Your task to perform on an android device: turn on location history Image 0: 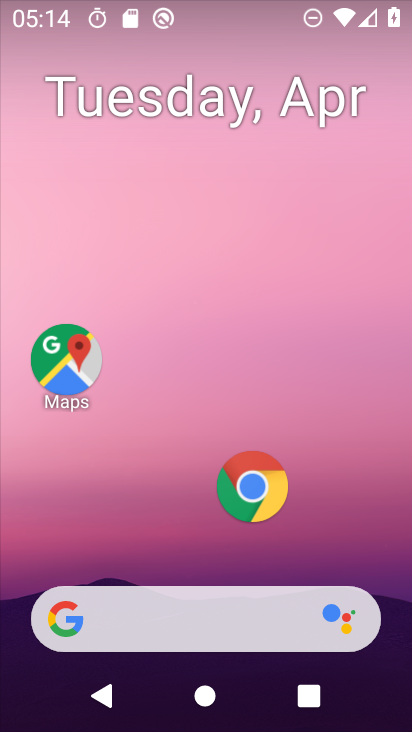
Step 0: drag from (100, 33) to (126, 432)
Your task to perform on an android device: turn on location history Image 1: 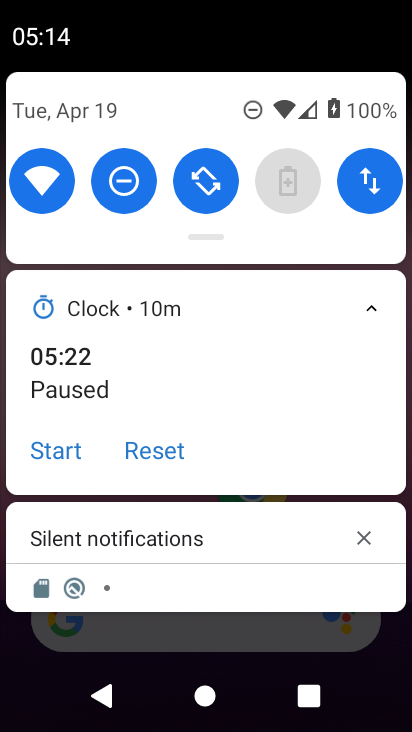
Step 1: click (247, 641)
Your task to perform on an android device: turn on location history Image 2: 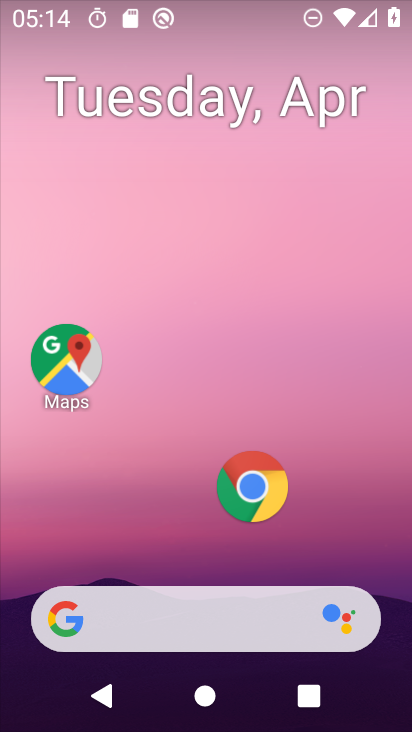
Step 2: drag from (258, 383) to (264, 141)
Your task to perform on an android device: turn on location history Image 3: 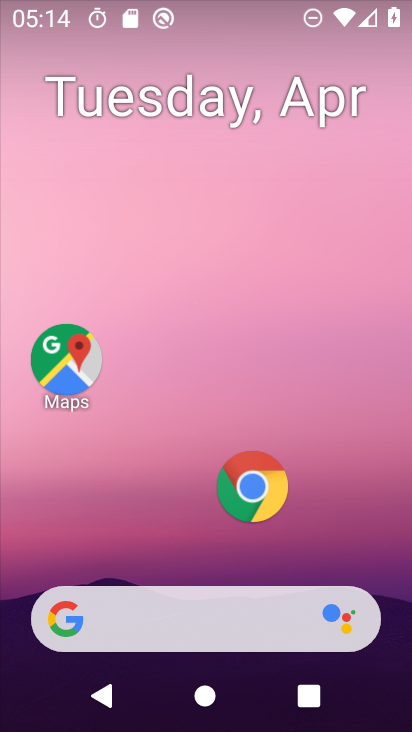
Step 3: drag from (170, 499) to (256, 17)
Your task to perform on an android device: turn on location history Image 4: 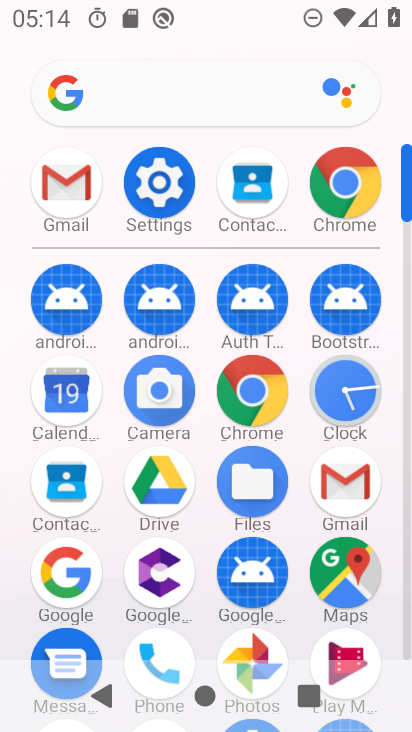
Step 4: click (156, 174)
Your task to perform on an android device: turn on location history Image 5: 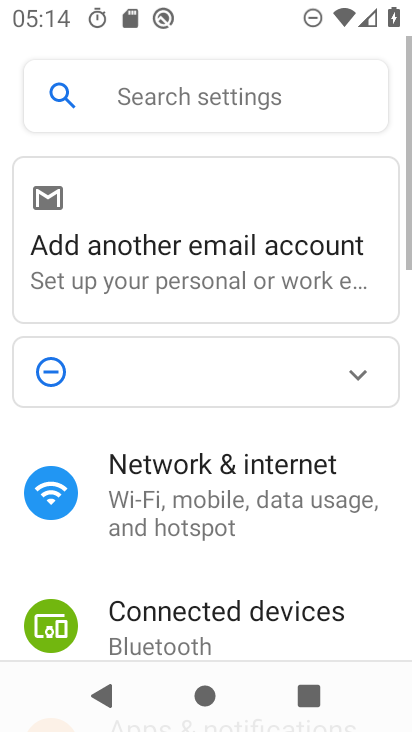
Step 5: drag from (210, 583) to (318, 91)
Your task to perform on an android device: turn on location history Image 6: 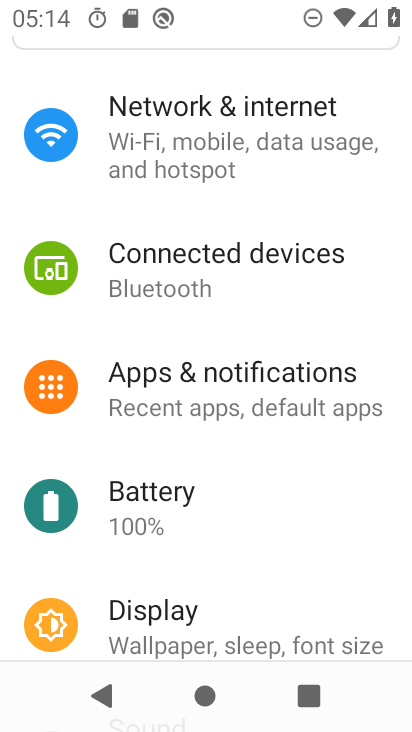
Step 6: drag from (236, 513) to (358, 35)
Your task to perform on an android device: turn on location history Image 7: 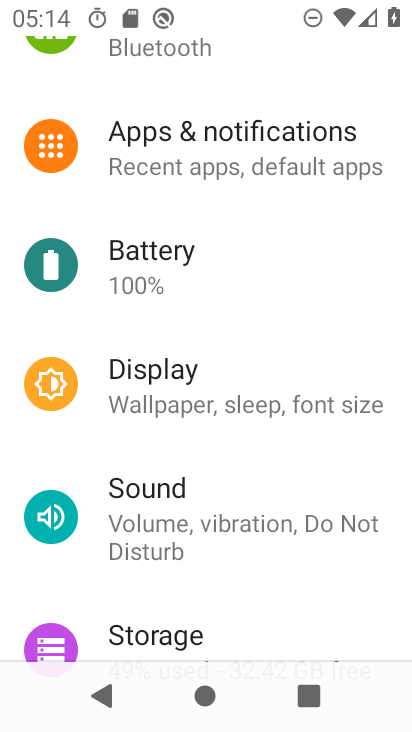
Step 7: drag from (210, 623) to (325, 127)
Your task to perform on an android device: turn on location history Image 8: 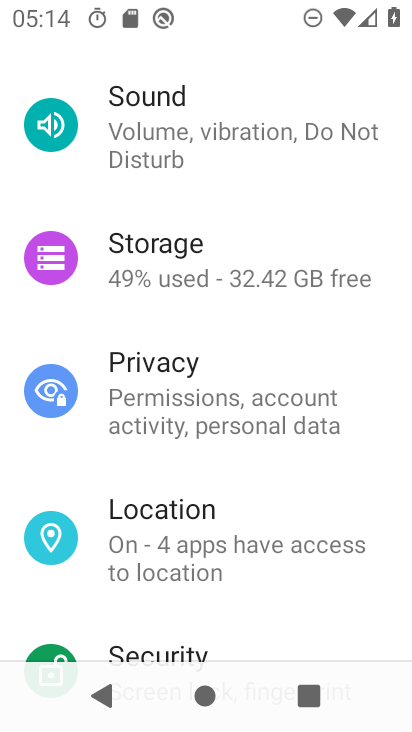
Step 8: click (193, 542)
Your task to perform on an android device: turn on location history Image 9: 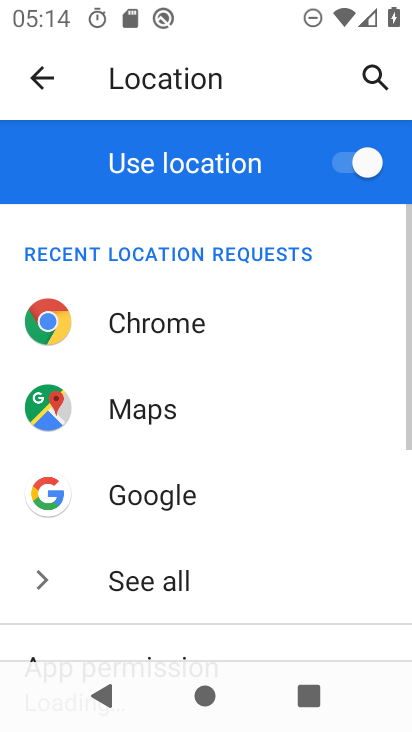
Step 9: drag from (215, 588) to (302, 129)
Your task to perform on an android device: turn on location history Image 10: 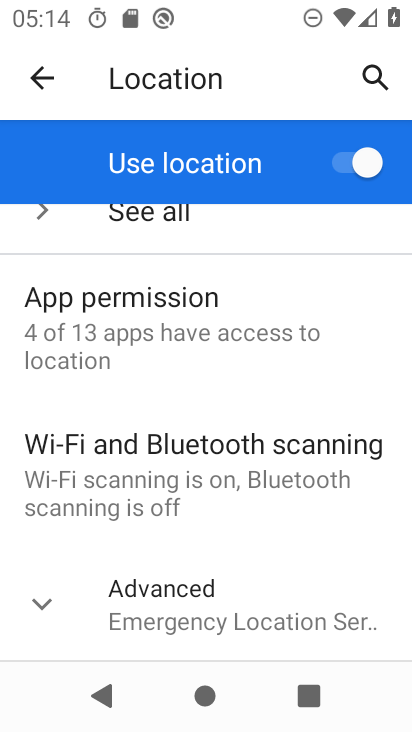
Step 10: click (186, 622)
Your task to perform on an android device: turn on location history Image 11: 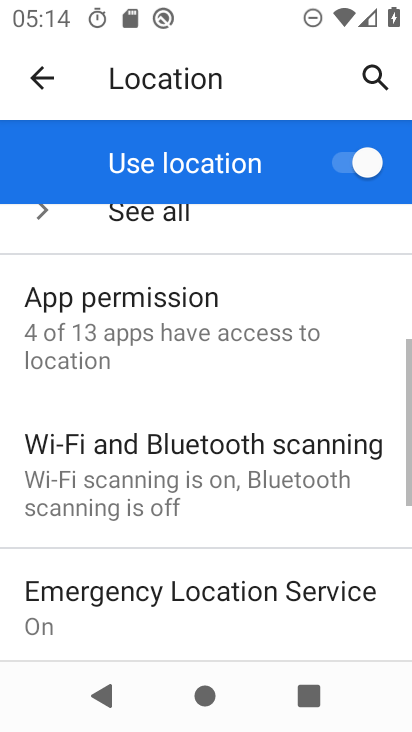
Step 11: drag from (190, 578) to (234, 157)
Your task to perform on an android device: turn on location history Image 12: 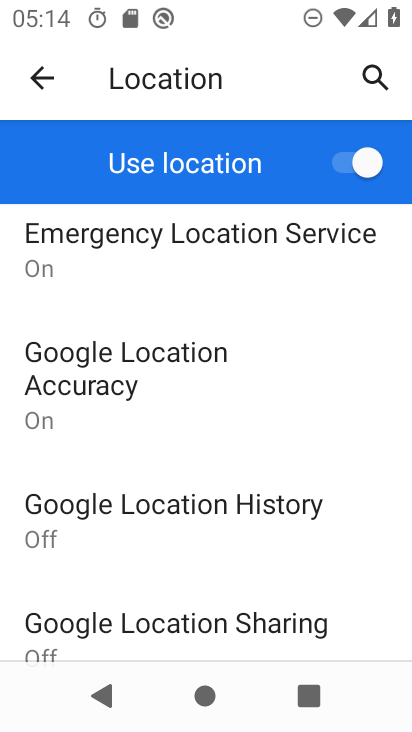
Step 12: click (204, 515)
Your task to perform on an android device: turn on location history Image 13: 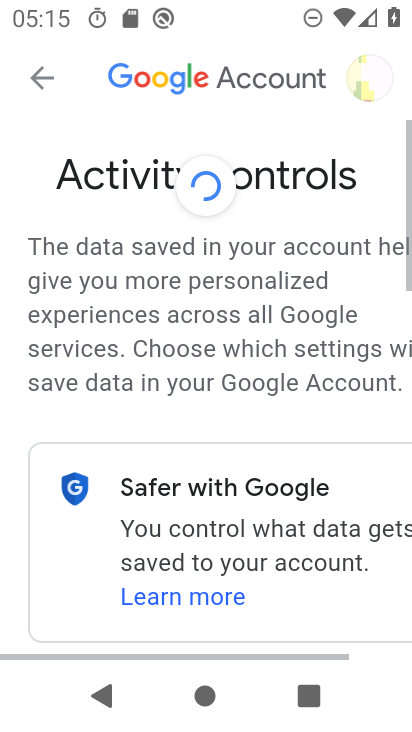
Step 13: drag from (180, 486) to (313, 80)
Your task to perform on an android device: turn on location history Image 14: 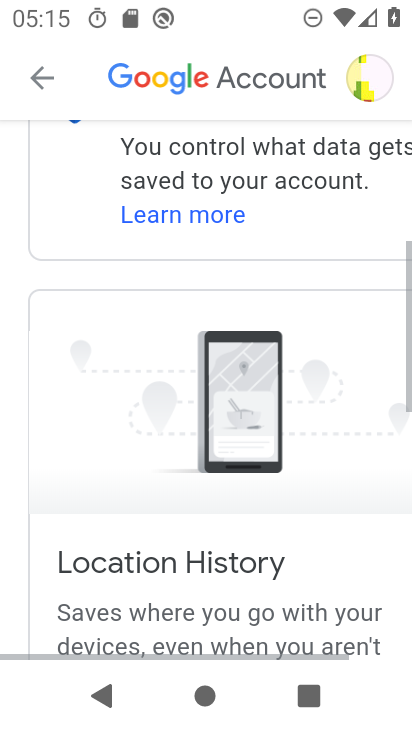
Step 14: drag from (218, 518) to (294, 90)
Your task to perform on an android device: turn on location history Image 15: 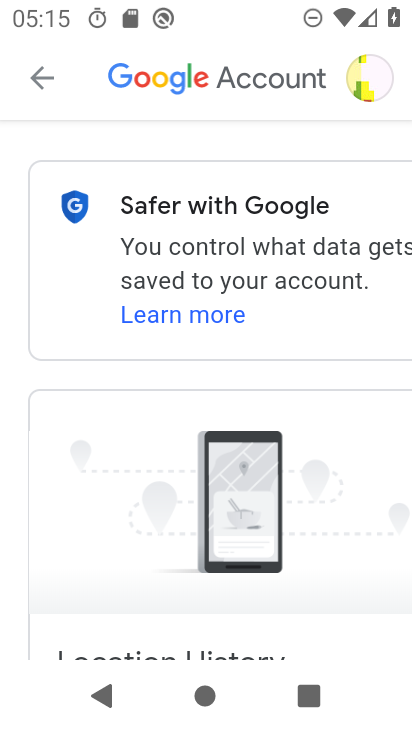
Step 15: drag from (205, 564) to (267, 93)
Your task to perform on an android device: turn on location history Image 16: 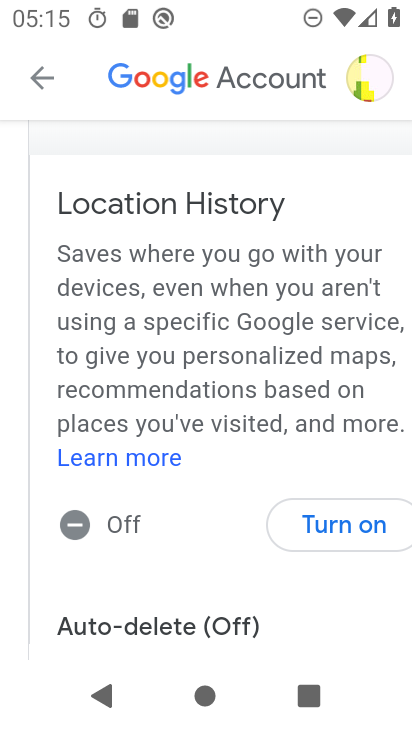
Step 16: click (324, 517)
Your task to perform on an android device: turn on location history Image 17: 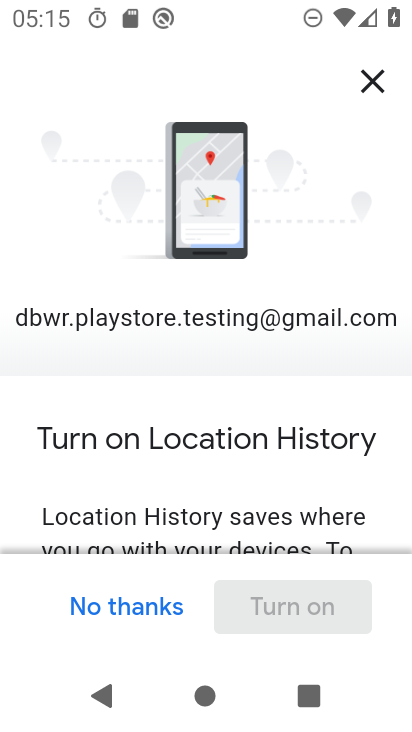
Step 17: drag from (218, 534) to (322, 59)
Your task to perform on an android device: turn on location history Image 18: 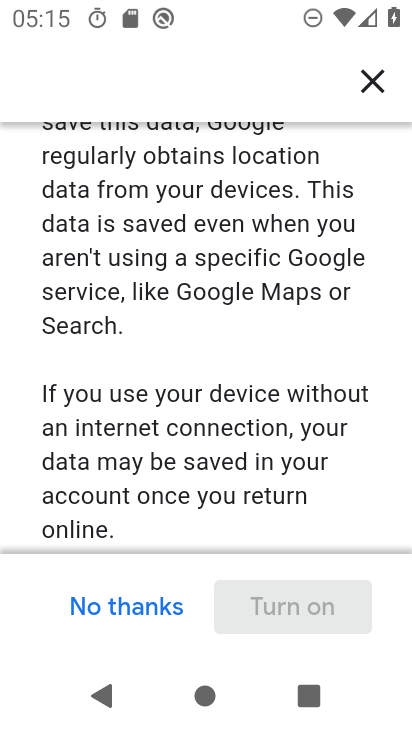
Step 18: drag from (231, 401) to (321, 33)
Your task to perform on an android device: turn on location history Image 19: 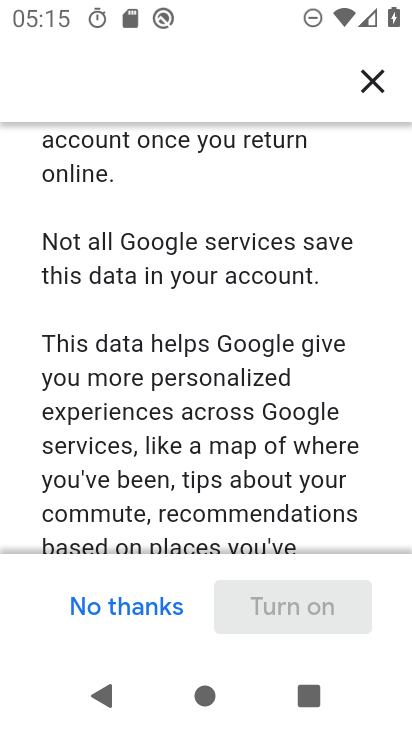
Step 19: drag from (206, 416) to (320, 25)
Your task to perform on an android device: turn on location history Image 20: 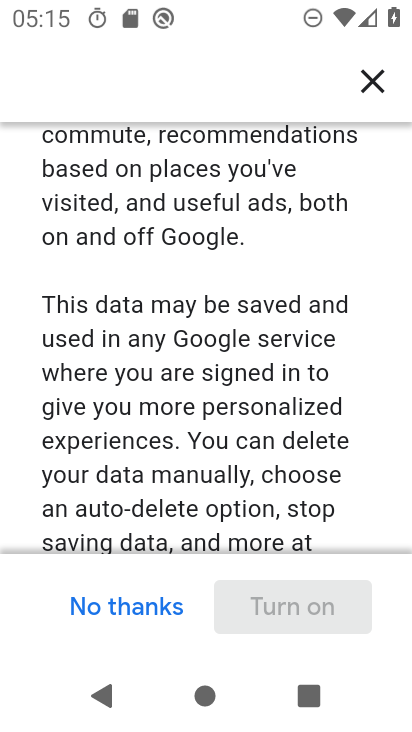
Step 20: drag from (215, 488) to (364, 7)
Your task to perform on an android device: turn on location history Image 21: 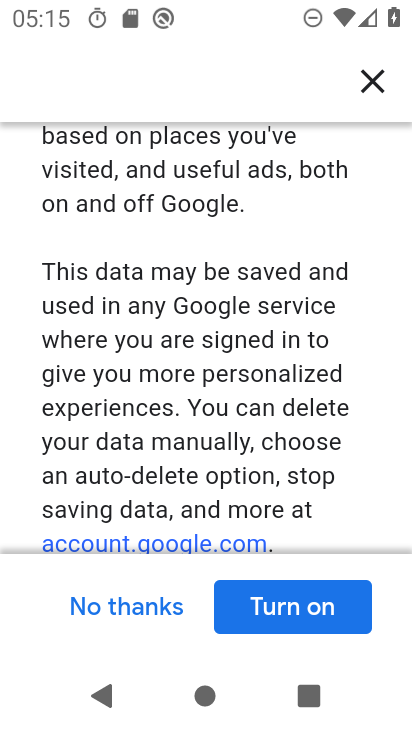
Step 21: click (296, 603)
Your task to perform on an android device: turn on location history Image 22: 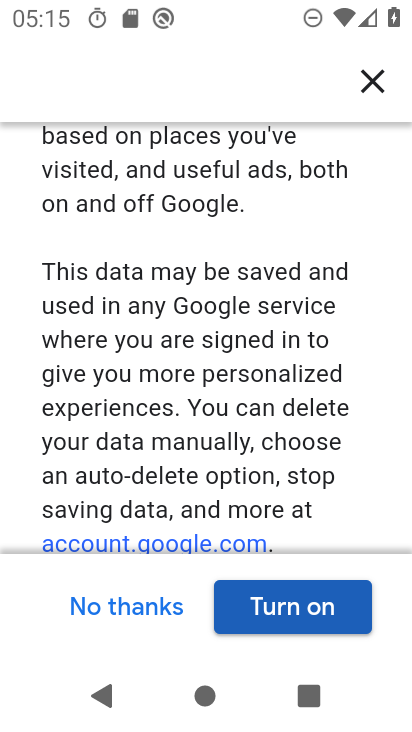
Step 22: click (300, 608)
Your task to perform on an android device: turn on location history Image 23: 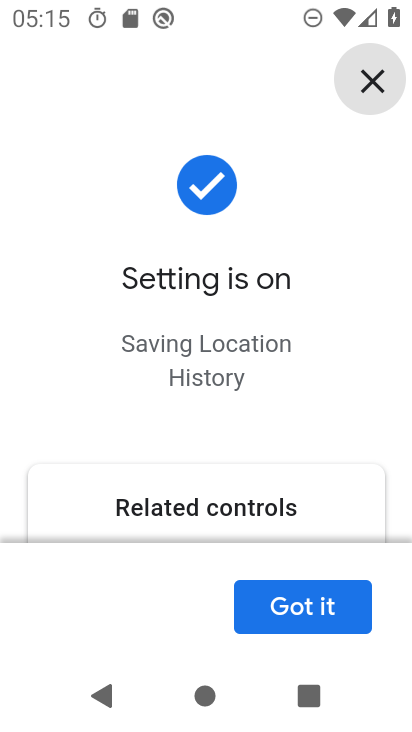
Step 23: click (328, 602)
Your task to perform on an android device: turn on location history Image 24: 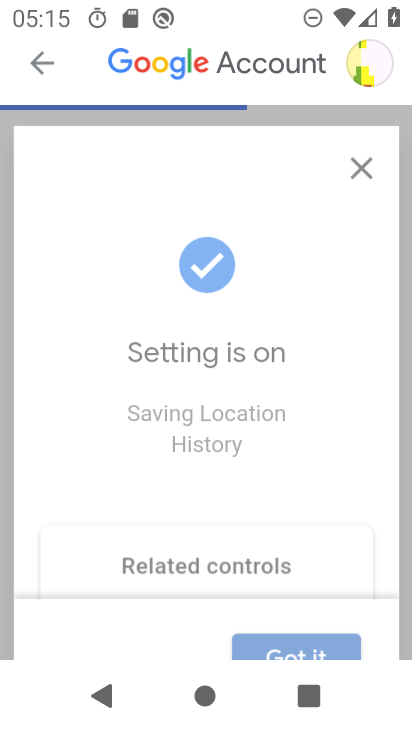
Step 24: task complete